Your task to perform on an android device: Search for vegetarian restaurants on Maps Image 0: 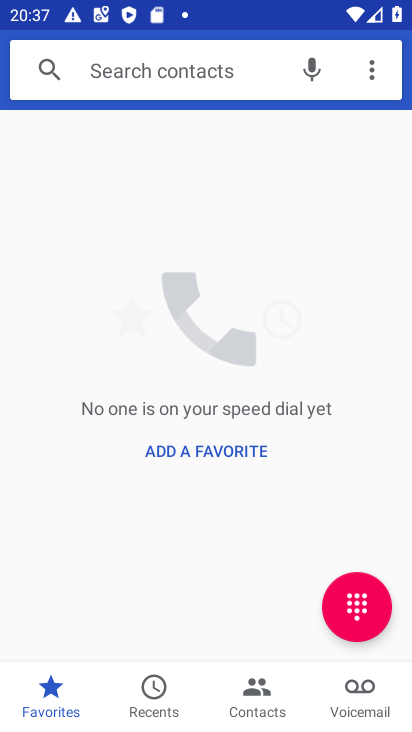
Step 0: press home button
Your task to perform on an android device: Search for vegetarian restaurants on Maps Image 1: 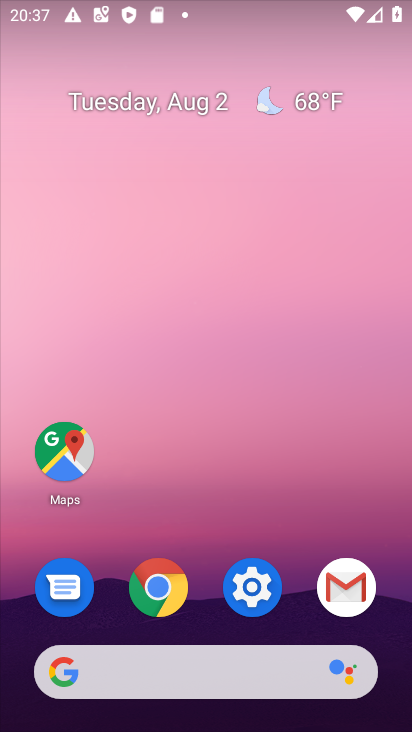
Step 1: click (54, 437)
Your task to perform on an android device: Search for vegetarian restaurants on Maps Image 2: 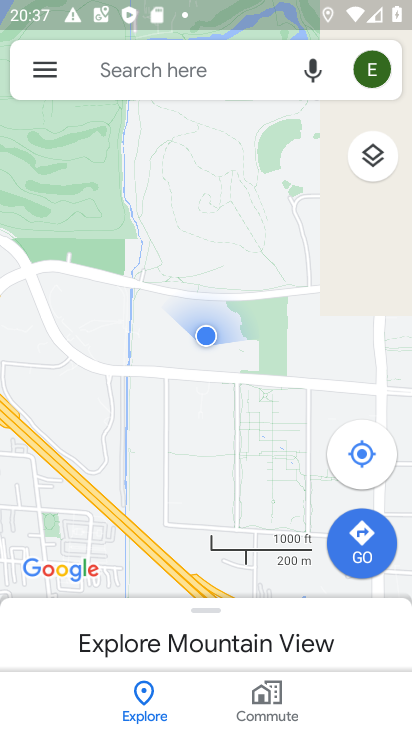
Step 2: click (189, 74)
Your task to perform on an android device: Search for vegetarian restaurants on Maps Image 3: 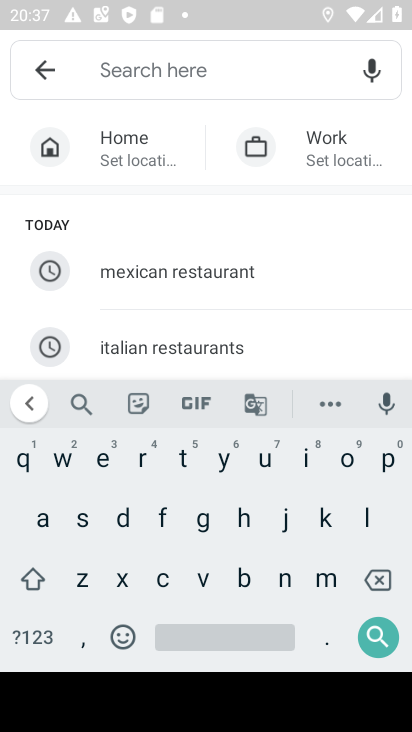
Step 3: click (204, 588)
Your task to perform on an android device: Search for vegetarian restaurants on Maps Image 4: 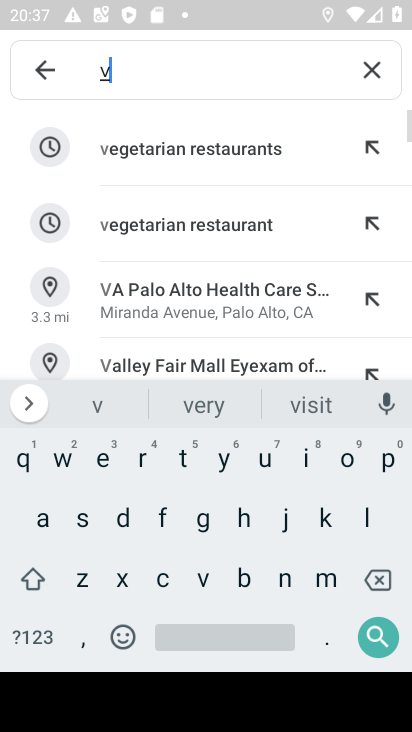
Step 4: click (201, 150)
Your task to perform on an android device: Search for vegetarian restaurants on Maps Image 5: 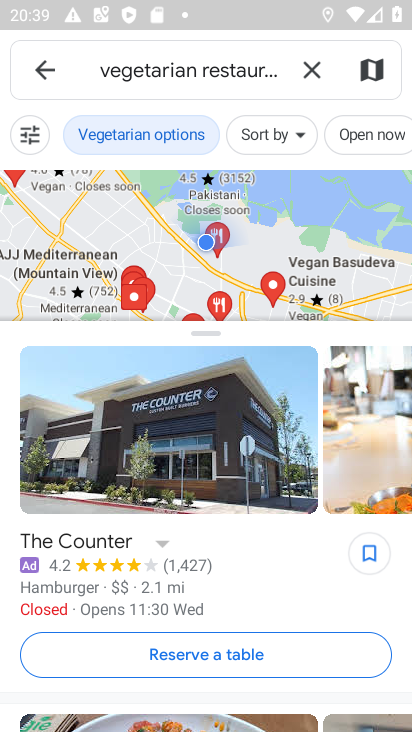
Step 5: task complete